Your task to perform on an android device: Open Chrome and go to the settings page Image 0: 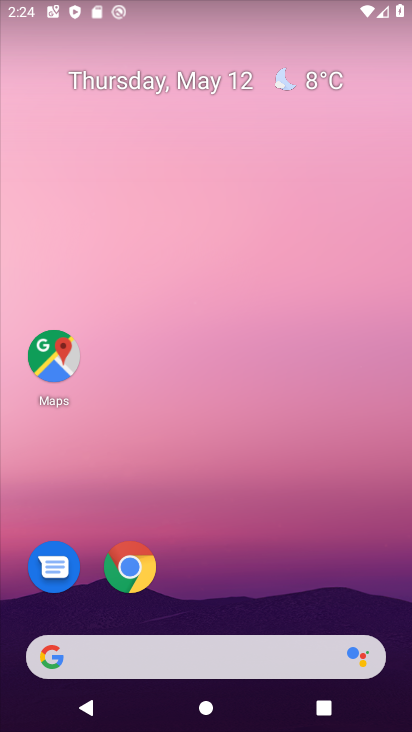
Step 0: drag from (245, 587) to (295, 120)
Your task to perform on an android device: Open Chrome and go to the settings page Image 1: 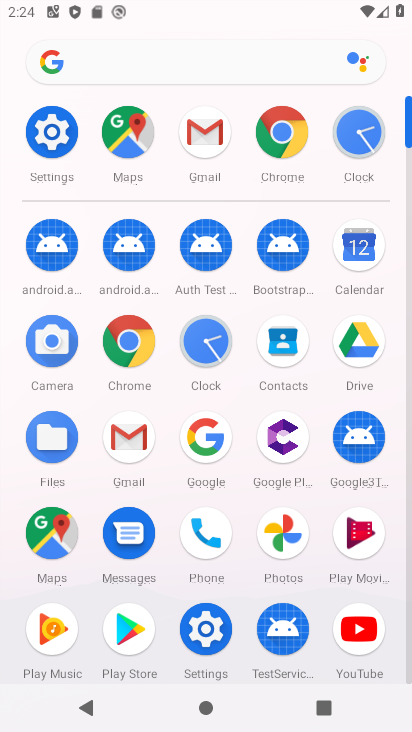
Step 1: click (124, 330)
Your task to perform on an android device: Open Chrome and go to the settings page Image 2: 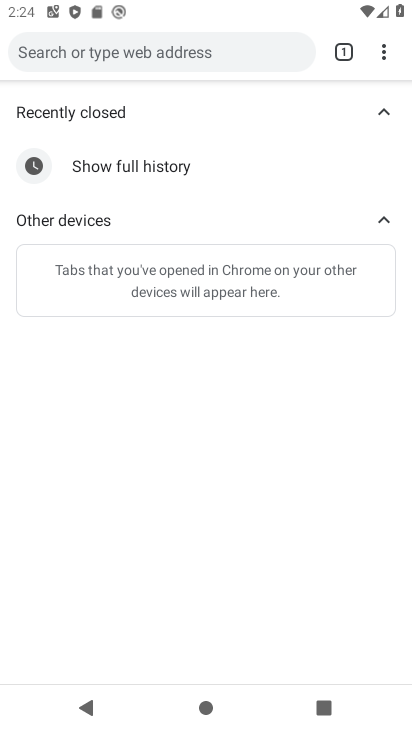
Step 2: click (383, 45)
Your task to perform on an android device: Open Chrome and go to the settings page Image 3: 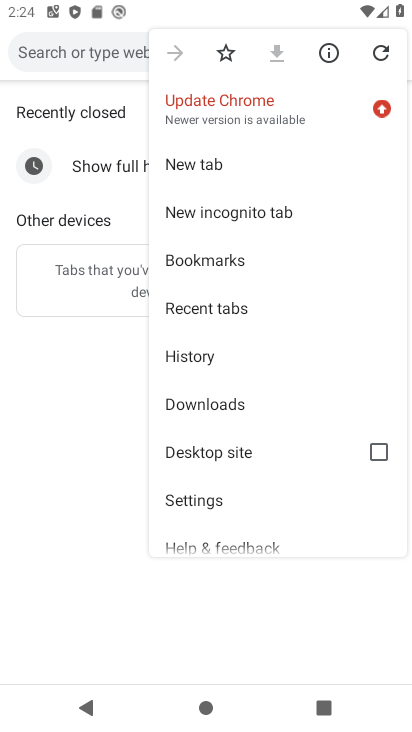
Step 3: click (222, 503)
Your task to perform on an android device: Open Chrome and go to the settings page Image 4: 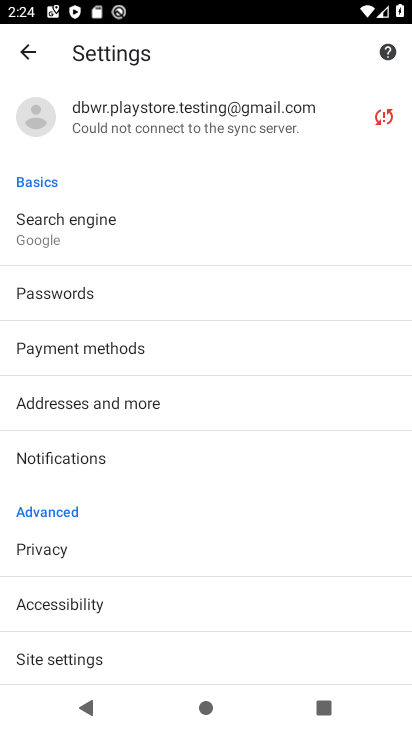
Step 4: task complete